Your task to perform on an android device: Open wifi settings Image 0: 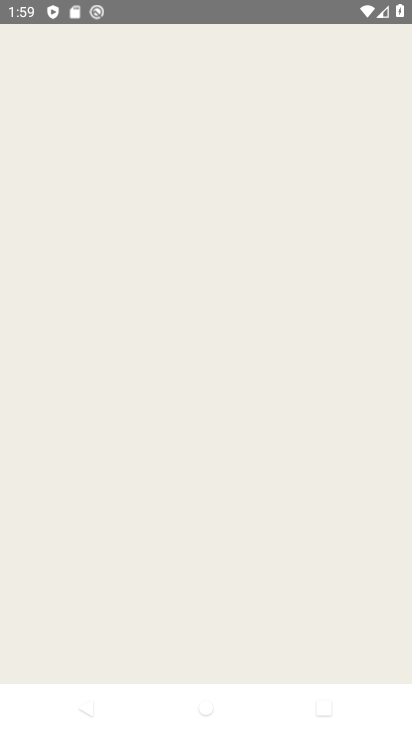
Step 0: click (176, 284)
Your task to perform on an android device: Open wifi settings Image 1: 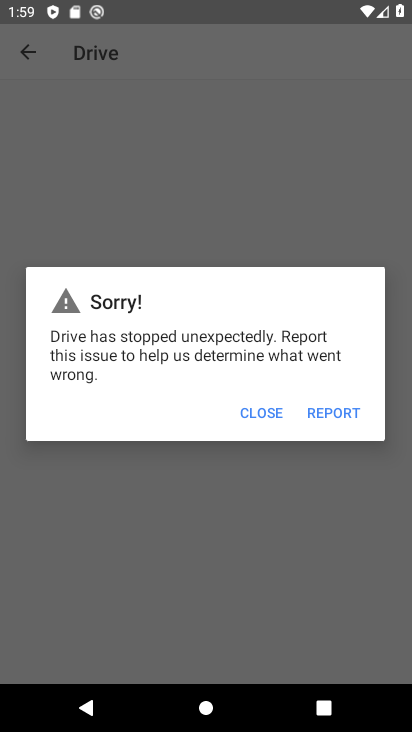
Step 1: press home button
Your task to perform on an android device: Open wifi settings Image 2: 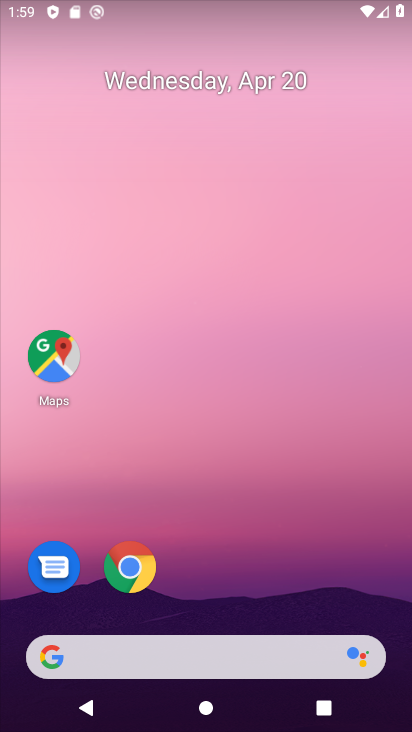
Step 2: drag from (124, 651) to (212, 79)
Your task to perform on an android device: Open wifi settings Image 3: 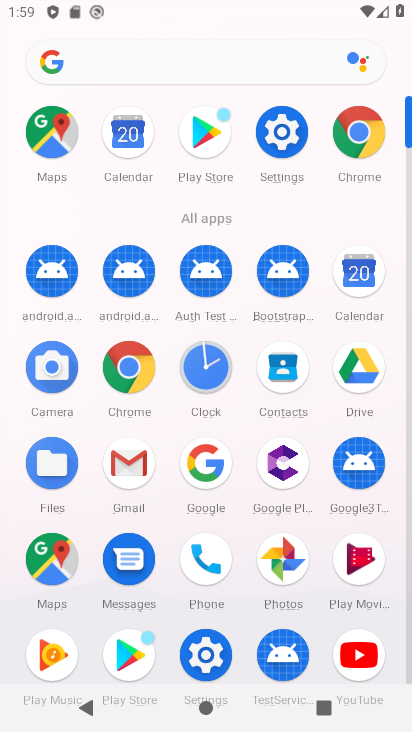
Step 3: click (266, 123)
Your task to perform on an android device: Open wifi settings Image 4: 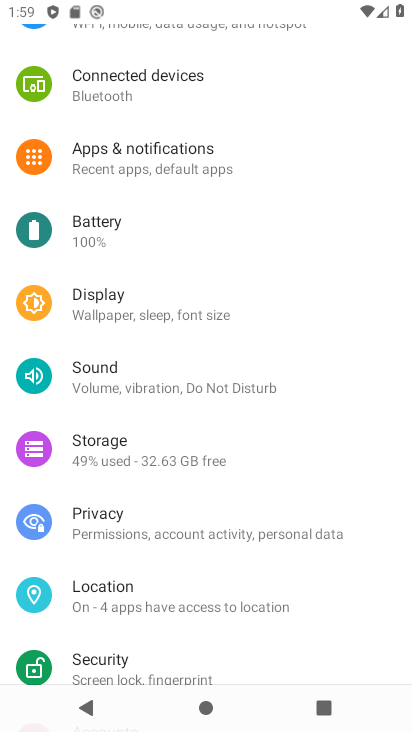
Step 4: drag from (148, 181) to (163, 501)
Your task to perform on an android device: Open wifi settings Image 5: 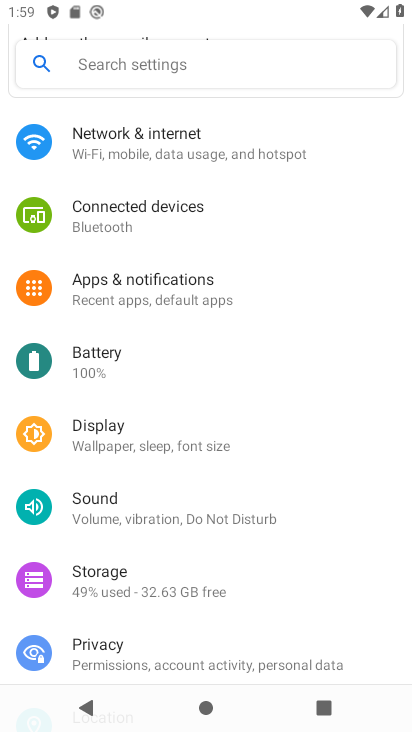
Step 5: click (131, 143)
Your task to perform on an android device: Open wifi settings Image 6: 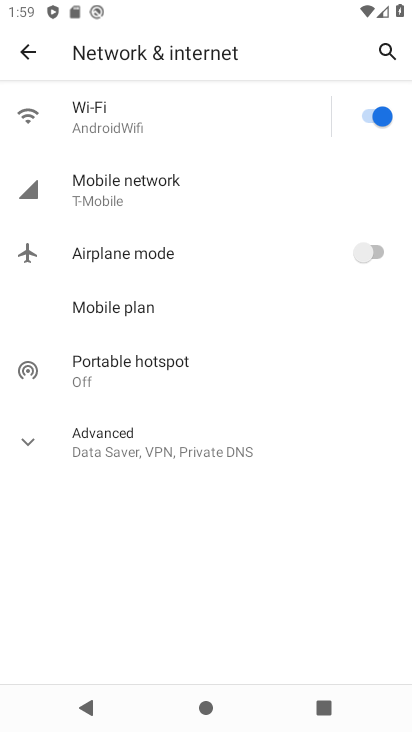
Step 6: click (137, 129)
Your task to perform on an android device: Open wifi settings Image 7: 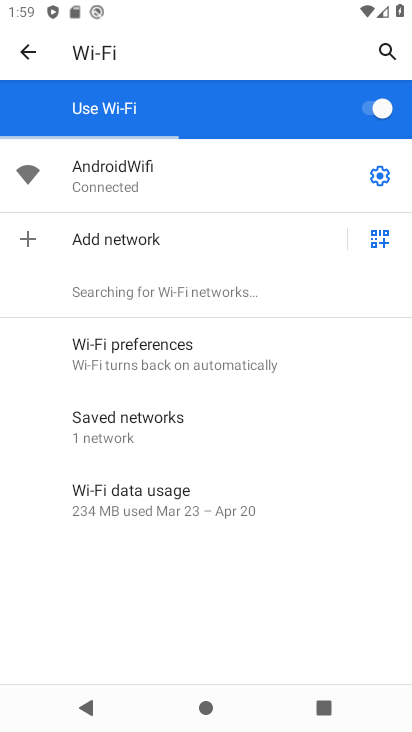
Step 7: task complete